Your task to perform on an android device: move a message to another label in the gmail app Image 0: 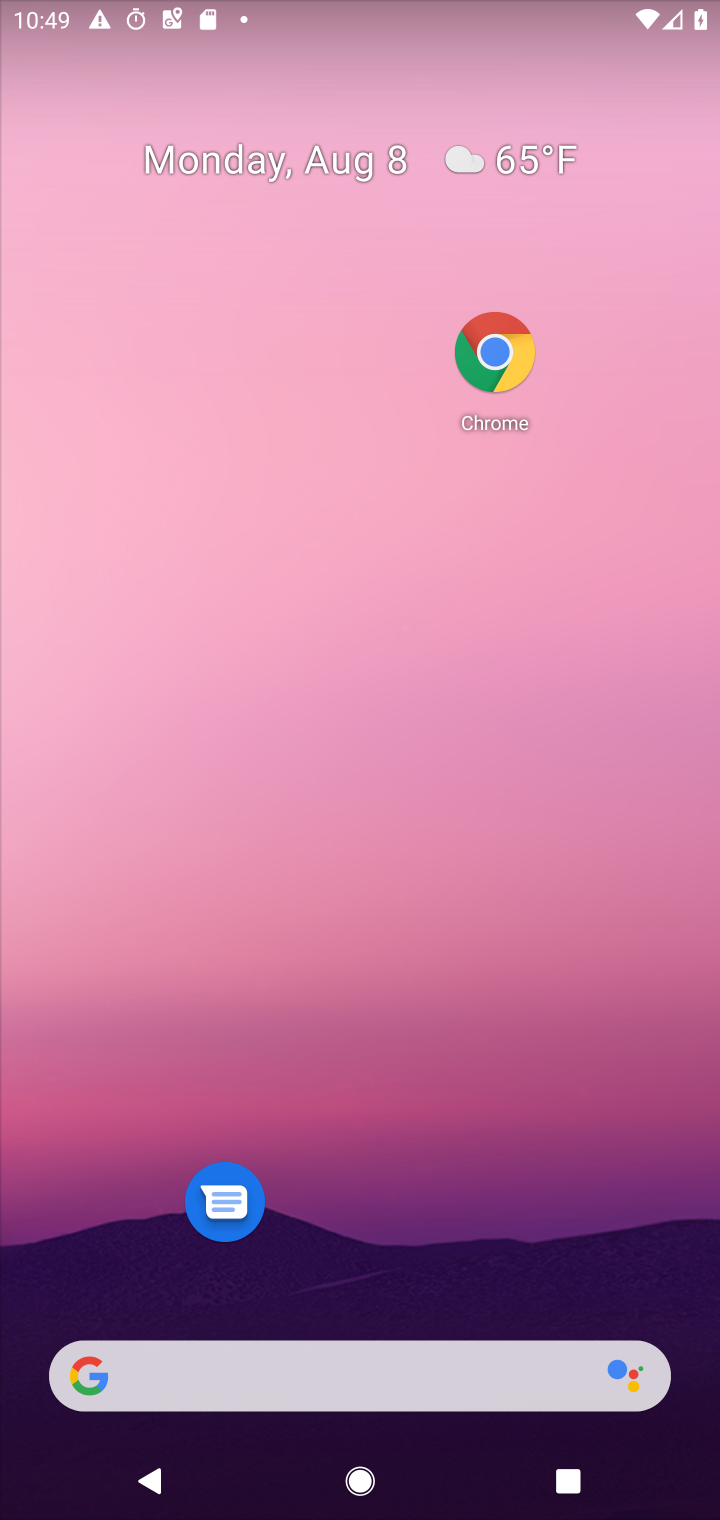
Step 0: drag from (333, 1345) to (454, 149)
Your task to perform on an android device: move a message to another label in the gmail app Image 1: 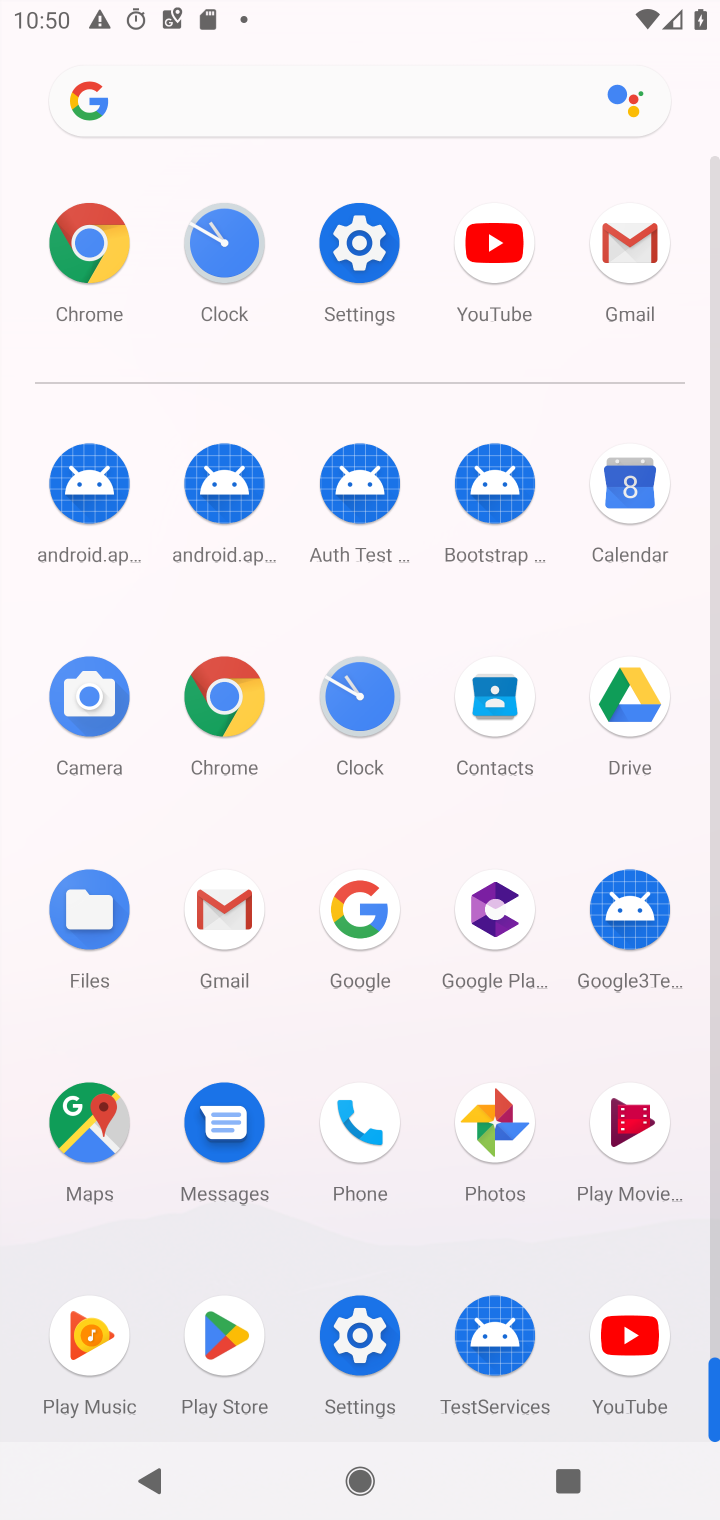
Step 1: click (223, 932)
Your task to perform on an android device: move a message to another label in the gmail app Image 2: 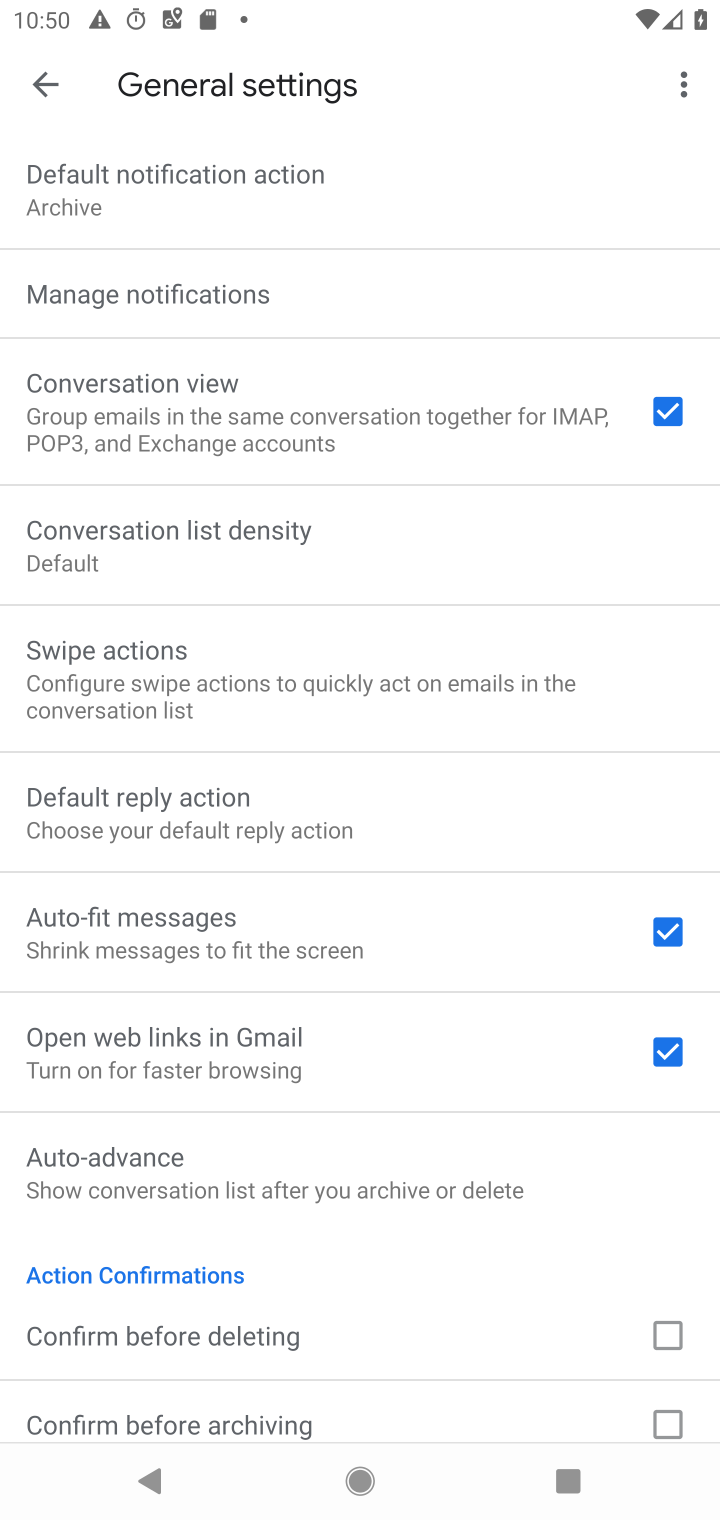
Step 2: click (48, 87)
Your task to perform on an android device: move a message to another label in the gmail app Image 3: 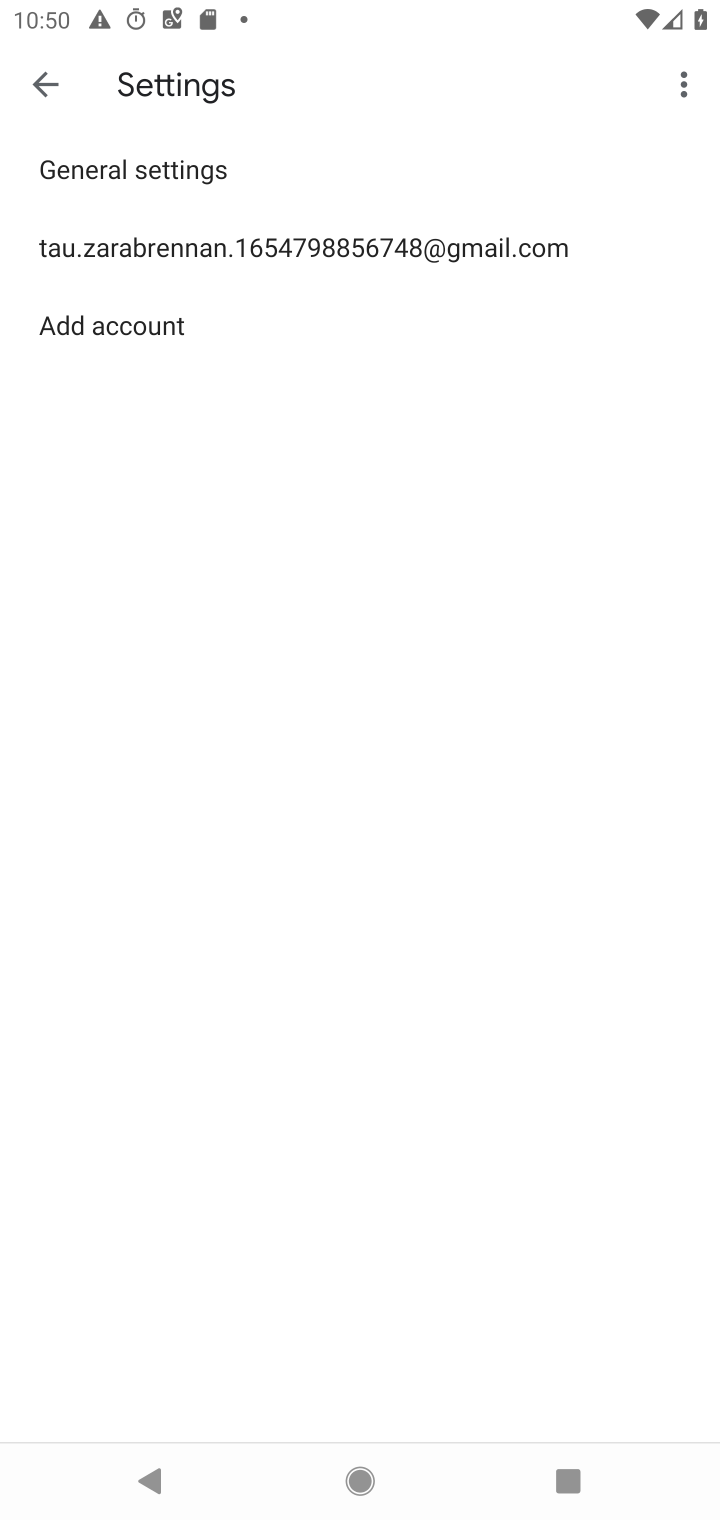
Step 3: click (32, 49)
Your task to perform on an android device: move a message to another label in the gmail app Image 4: 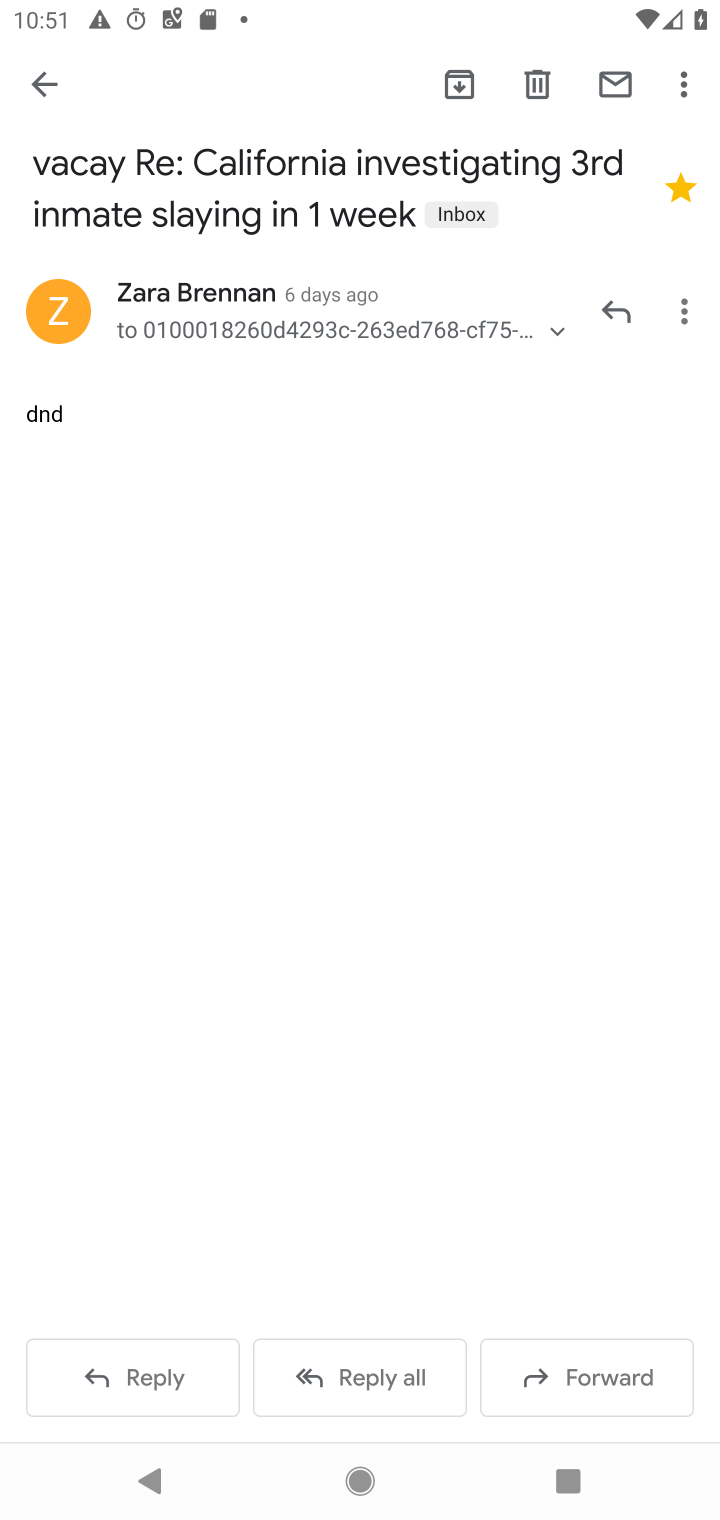
Step 4: click (688, 92)
Your task to perform on an android device: move a message to another label in the gmail app Image 5: 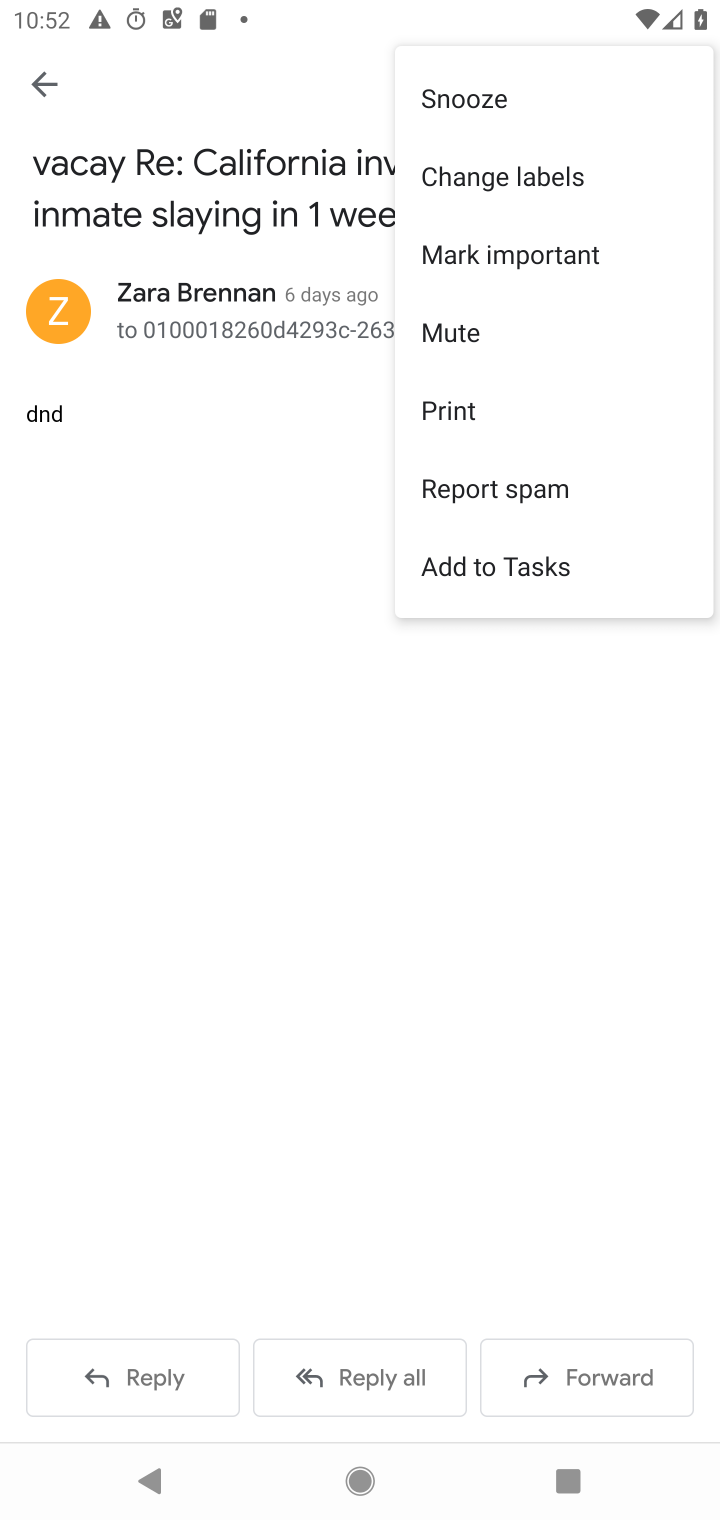
Step 5: click (534, 185)
Your task to perform on an android device: move a message to another label in the gmail app Image 6: 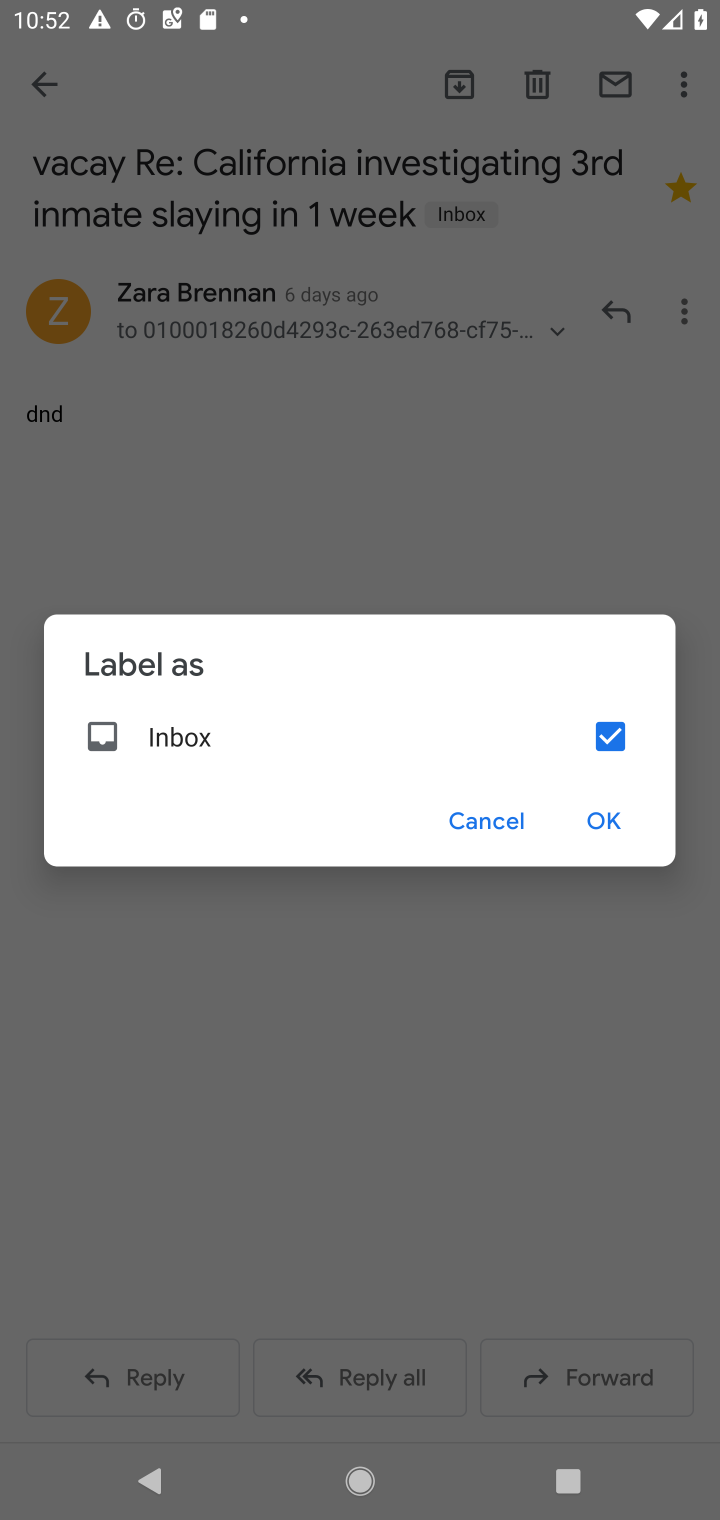
Step 6: click (596, 812)
Your task to perform on an android device: move a message to another label in the gmail app Image 7: 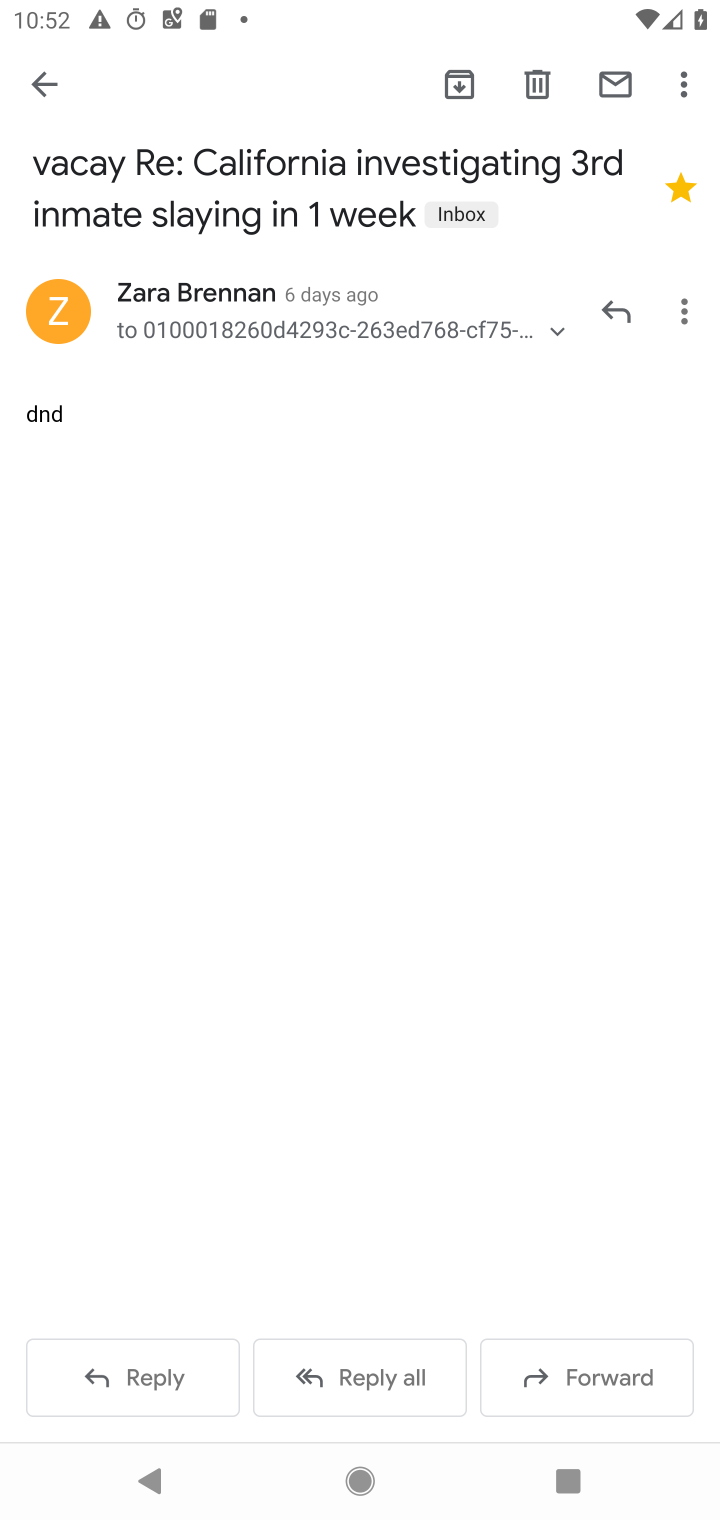
Step 7: task complete